Your task to perform on an android device: Go to internet settings Image 0: 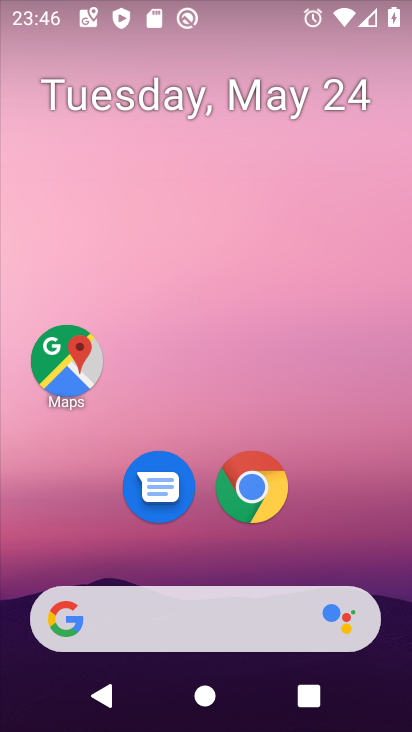
Step 0: drag from (216, 507) to (324, 78)
Your task to perform on an android device: Go to internet settings Image 1: 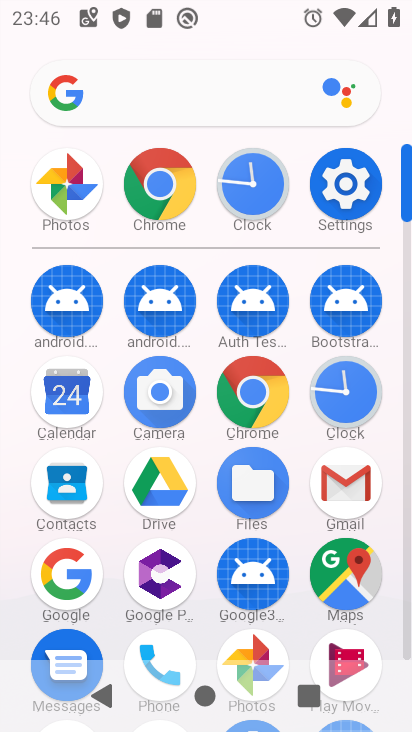
Step 1: click (351, 181)
Your task to perform on an android device: Go to internet settings Image 2: 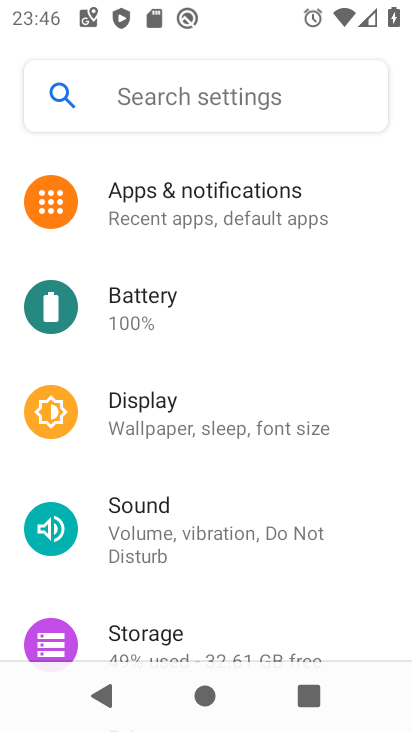
Step 2: drag from (227, 267) to (212, 671)
Your task to perform on an android device: Go to internet settings Image 3: 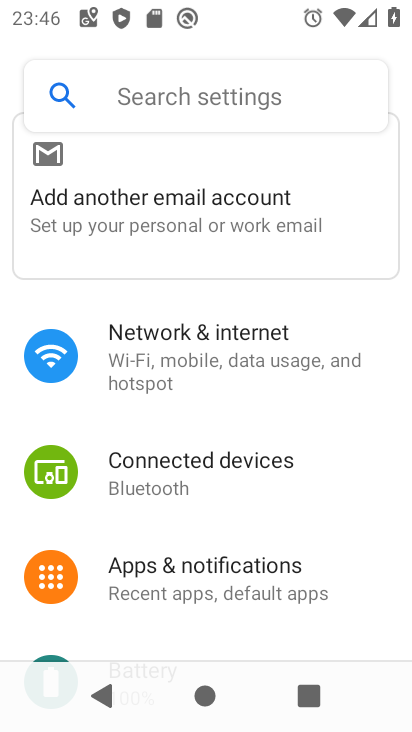
Step 3: click (188, 349)
Your task to perform on an android device: Go to internet settings Image 4: 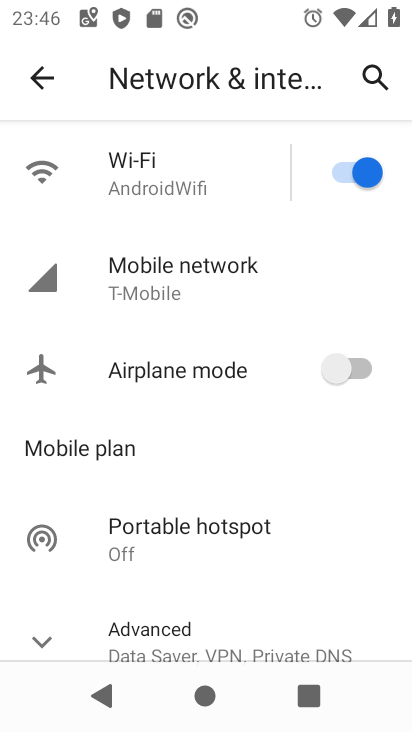
Step 4: task complete